Your task to perform on an android device: stop showing notifications on the lock screen Image 0: 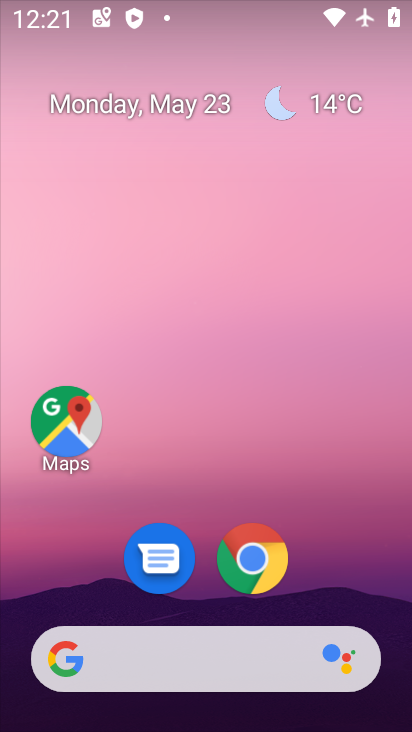
Step 0: drag from (353, 597) to (403, 54)
Your task to perform on an android device: stop showing notifications on the lock screen Image 1: 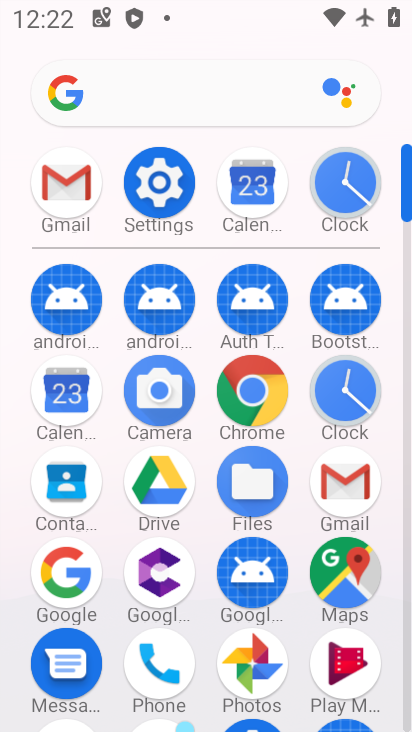
Step 1: click (174, 211)
Your task to perform on an android device: stop showing notifications on the lock screen Image 2: 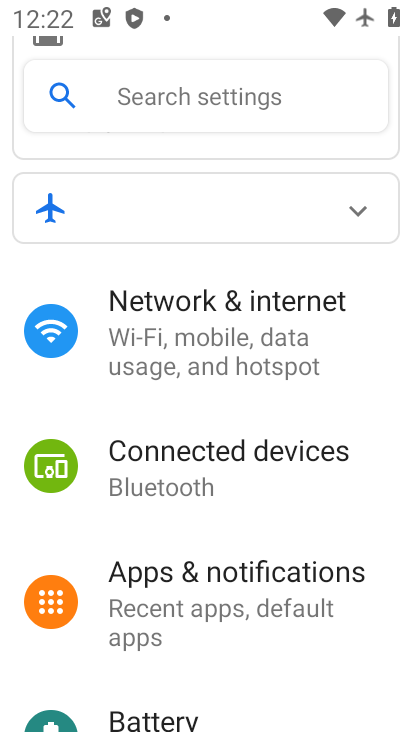
Step 2: click (195, 585)
Your task to perform on an android device: stop showing notifications on the lock screen Image 3: 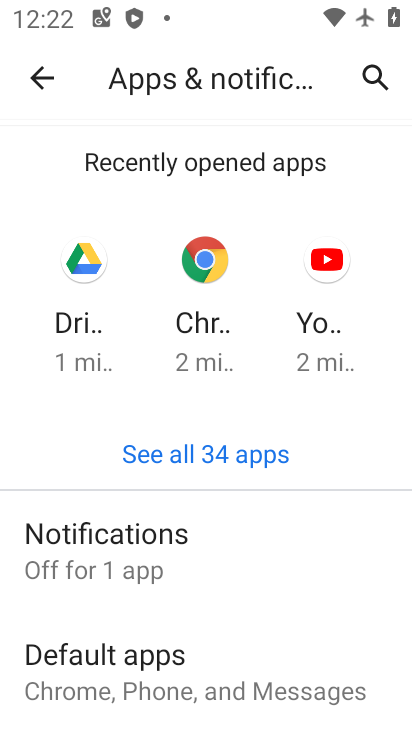
Step 3: click (112, 561)
Your task to perform on an android device: stop showing notifications on the lock screen Image 4: 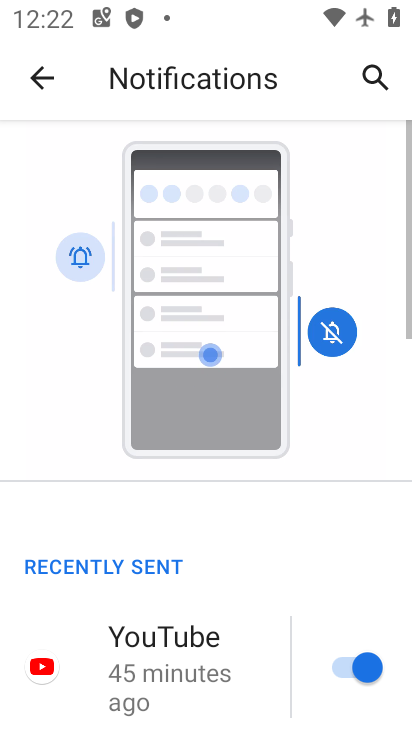
Step 4: drag from (149, 617) to (151, 68)
Your task to perform on an android device: stop showing notifications on the lock screen Image 5: 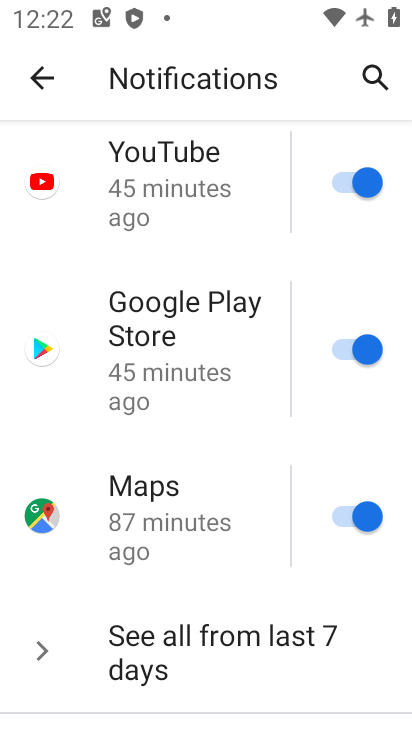
Step 5: drag from (139, 586) to (118, 206)
Your task to perform on an android device: stop showing notifications on the lock screen Image 6: 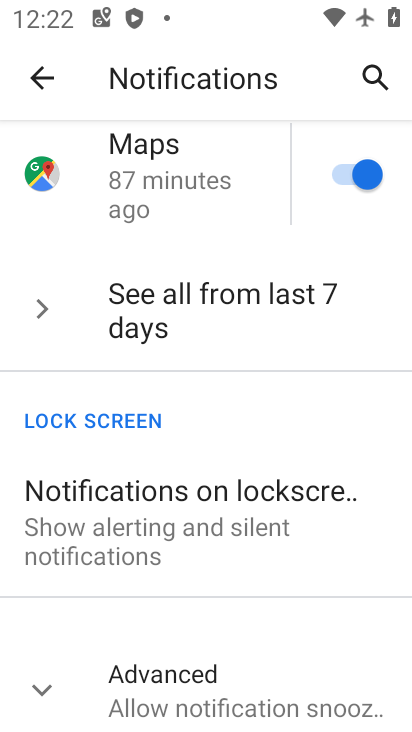
Step 6: click (144, 526)
Your task to perform on an android device: stop showing notifications on the lock screen Image 7: 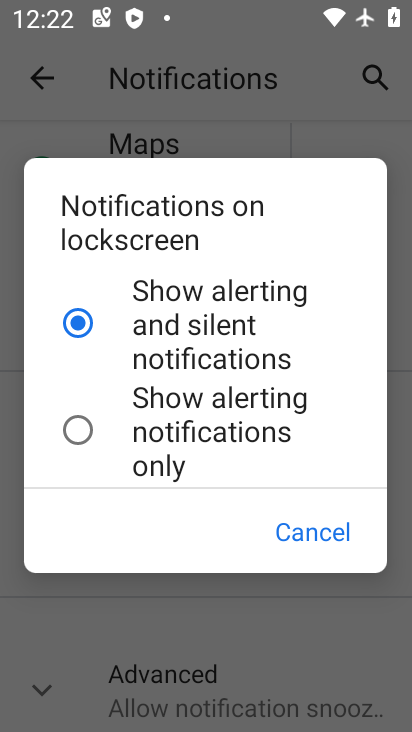
Step 7: drag from (142, 435) to (159, 216)
Your task to perform on an android device: stop showing notifications on the lock screen Image 8: 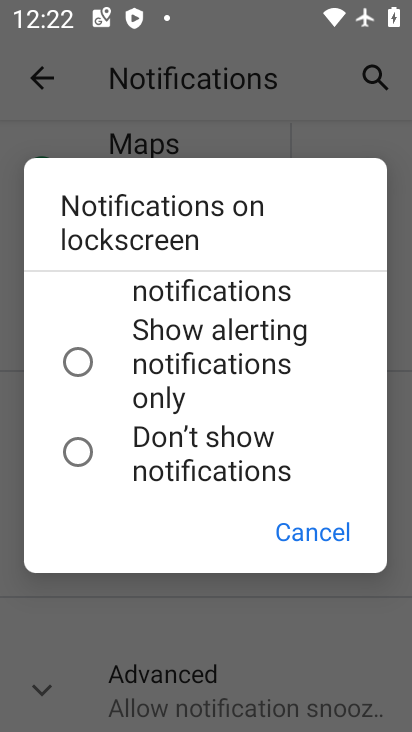
Step 8: click (72, 450)
Your task to perform on an android device: stop showing notifications on the lock screen Image 9: 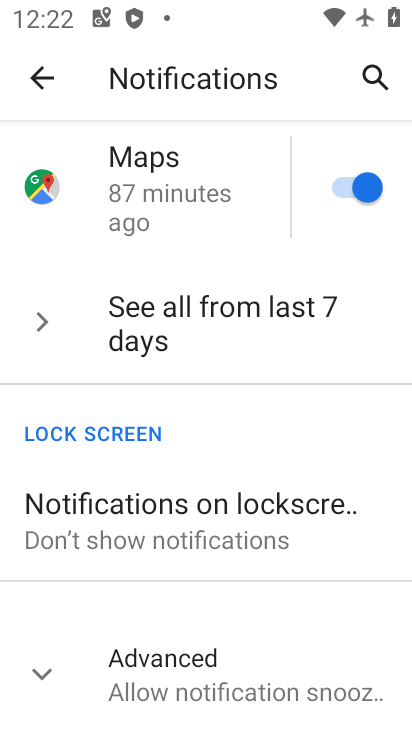
Step 9: task complete